Your task to perform on an android device: check battery use Image 0: 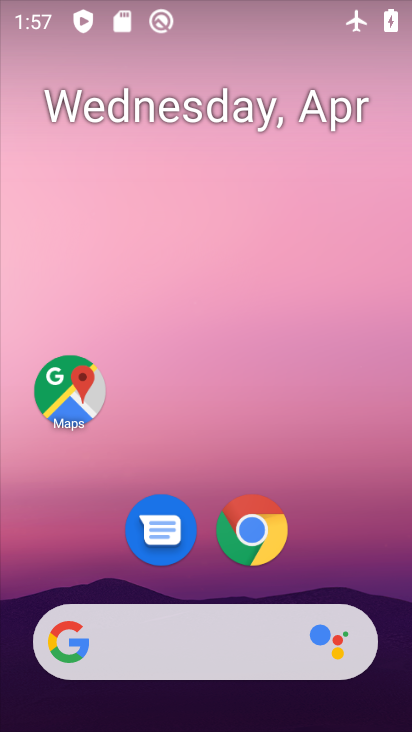
Step 0: drag from (332, 554) to (323, 161)
Your task to perform on an android device: check battery use Image 1: 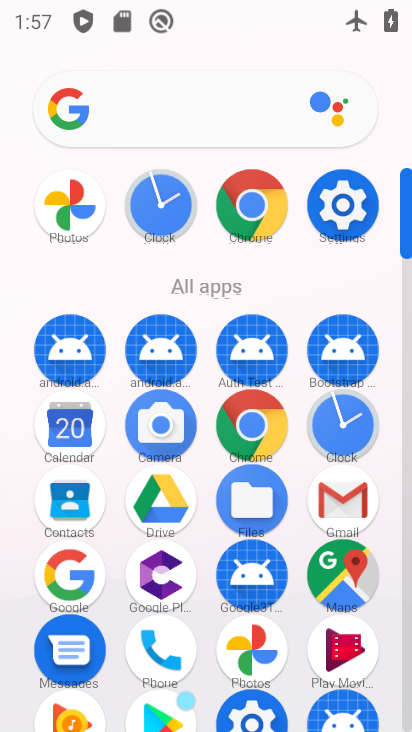
Step 1: drag from (293, 605) to (313, 247)
Your task to perform on an android device: check battery use Image 2: 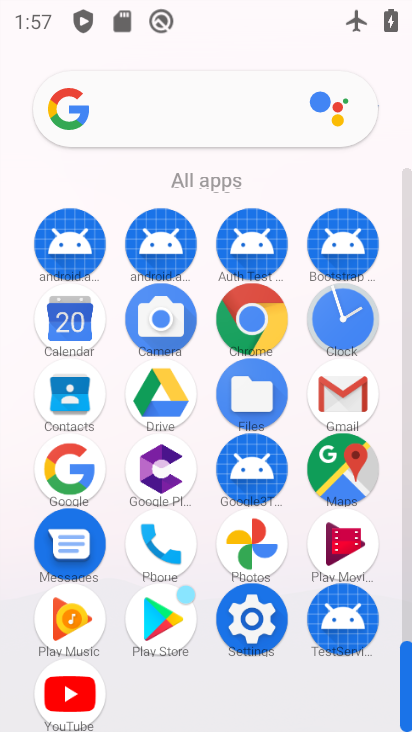
Step 2: click (248, 628)
Your task to perform on an android device: check battery use Image 3: 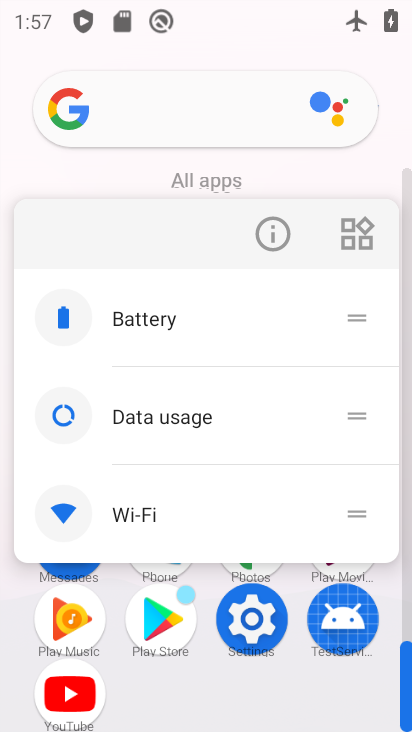
Step 3: click (248, 628)
Your task to perform on an android device: check battery use Image 4: 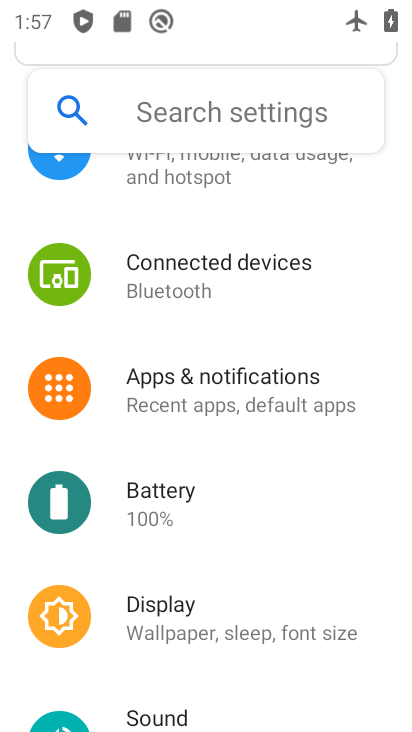
Step 4: click (158, 498)
Your task to perform on an android device: check battery use Image 5: 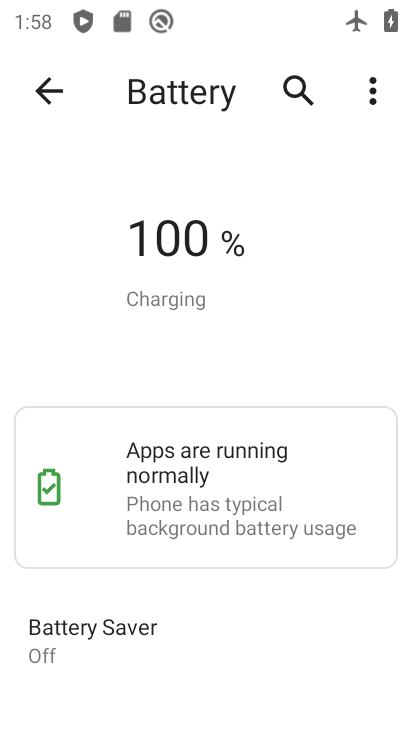
Step 5: click (372, 88)
Your task to perform on an android device: check battery use Image 6: 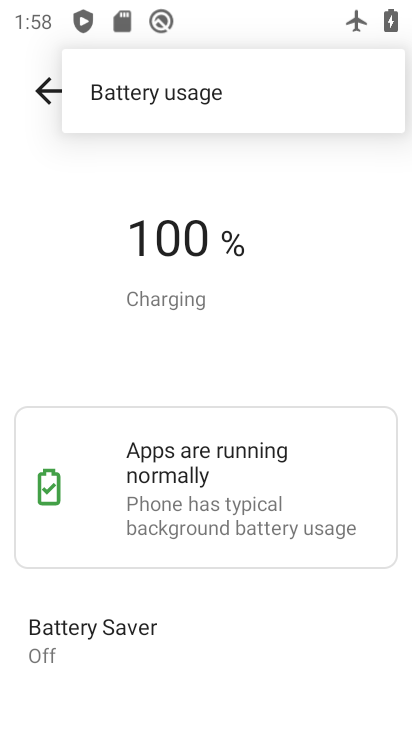
Step 6: click (279, 93)
Your task to perform on an android device: check battery use Image 7: 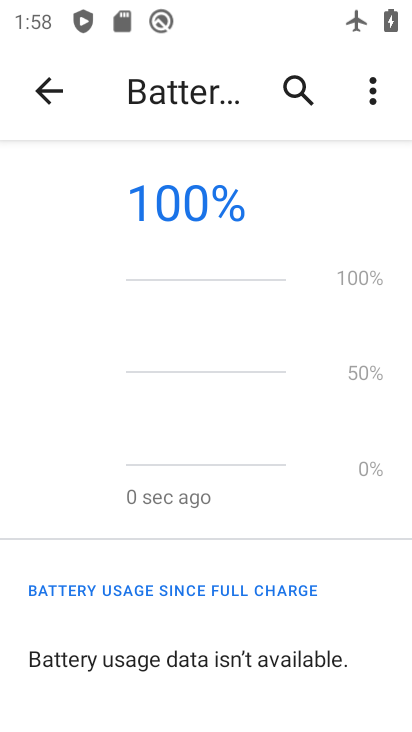
Step 7: task complete